Your task to perform on an android device: Open settings on Google Maps Image 0: 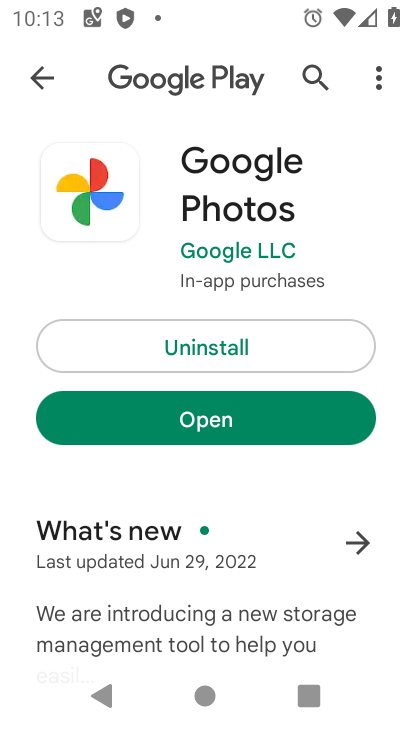
Step 0: press home button
Your task to perform on an android device: Open settings on Google Maps Image 1: 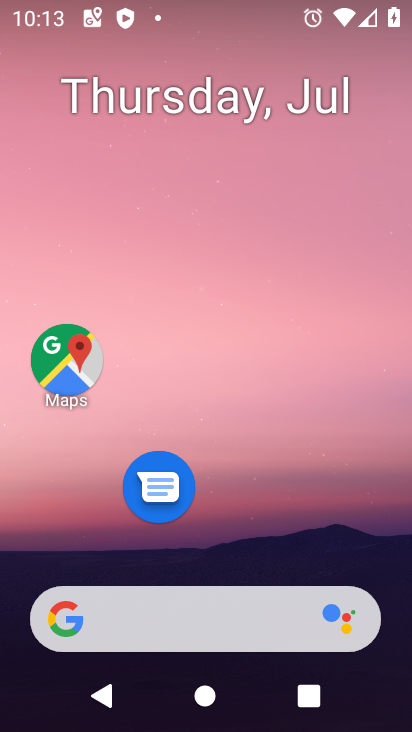
Step 1: drag from (215, 601) to (215, 215)
Your task to perform on an android device: Open settings on Google Maps Image 2: 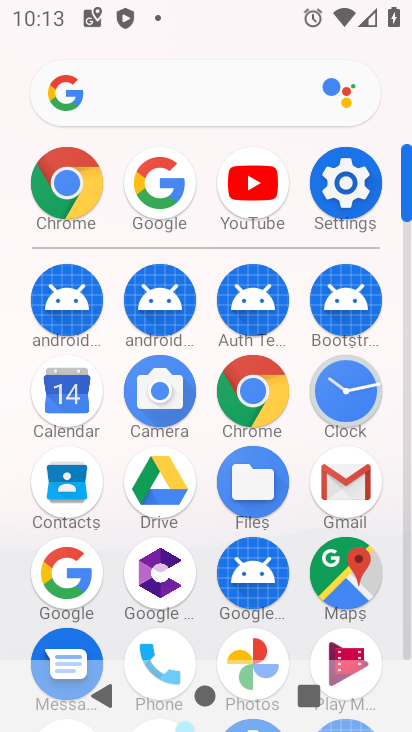
Step 2: drag from (156, 499) to (177, 298)
Your task to perform on an android device: Open settings on Google Maps Image 3: 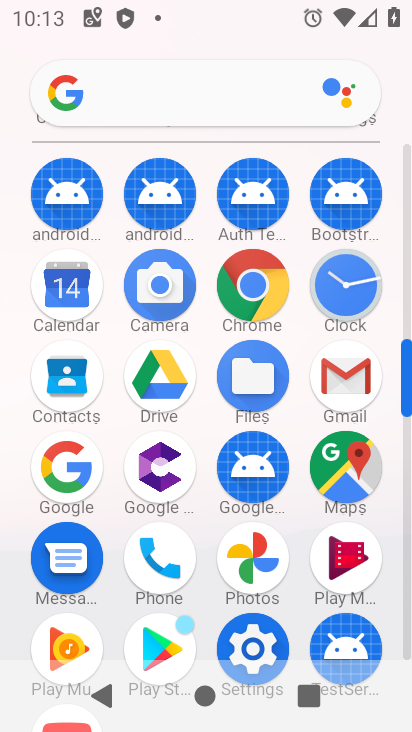
Step 3: click (349, 472)
Your task to perform on an android device: Open settings on Google Maps Image 4: 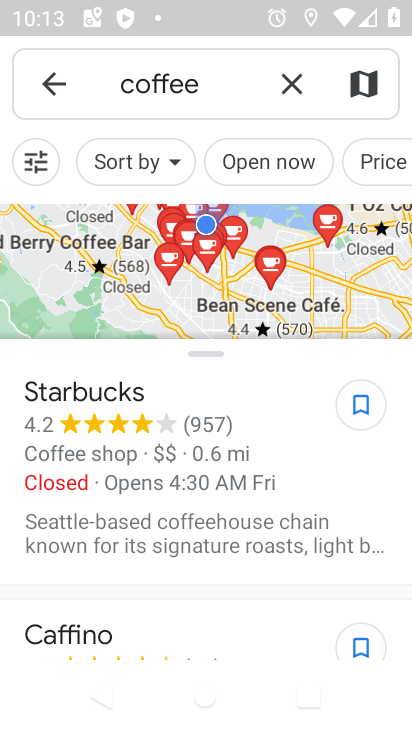
Step 4: click (60, 86)
Your task to perform on an android device: Open settings on Google Maps Image 5: 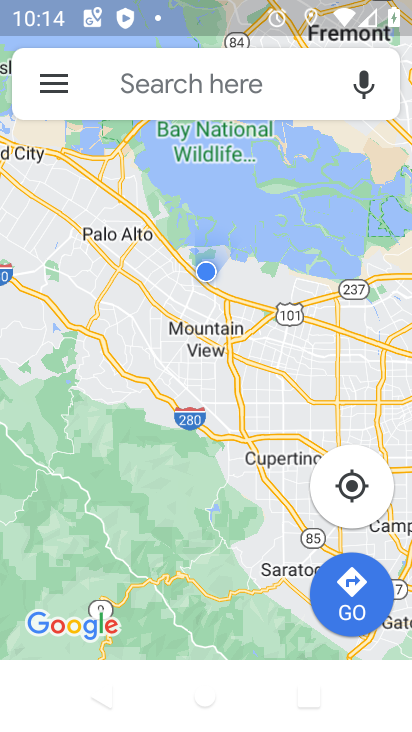
Step 5: click (51, 86)
Your task to perform on an android device: Open settings on Google Maps Image 6: 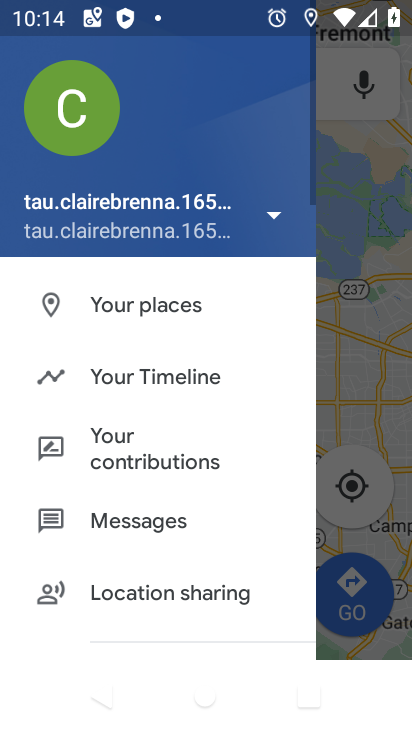
Step 6: drag from (103, 522) to (185, 94)
Your task to perform on an android device: Open settings on Google Maps Image 7: 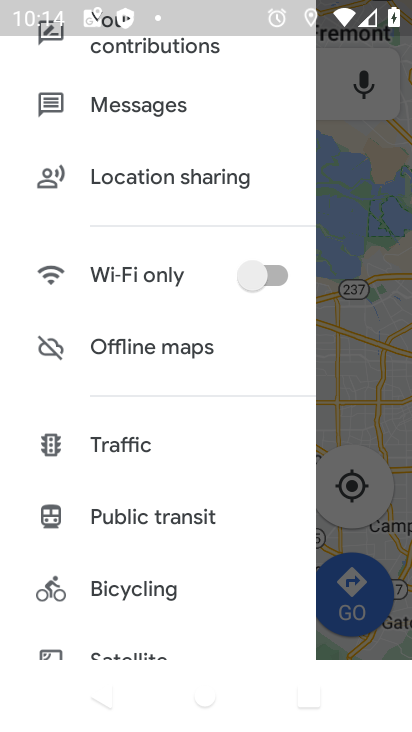
Step 7: drag from (123, 521) to (198, 176)
Your task to perform on an android device: Open settings on Google Maps Image 8: 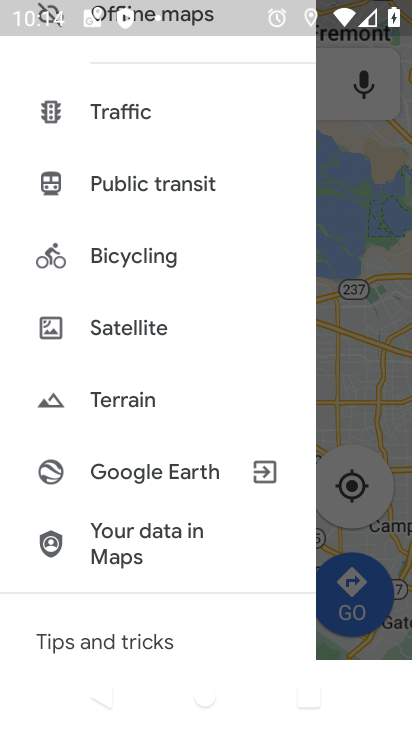
Step 8: drag from (104, 529) to (179, 150)
Your task to perform on an android device: Open settings on Google Maps Image 9: 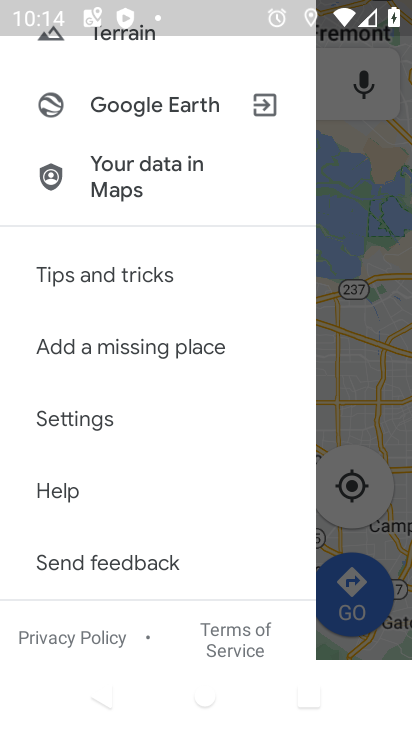
Step 9: click (99, 426)
Your task to perform on an android device: Open settings on Google Maps Image 10: 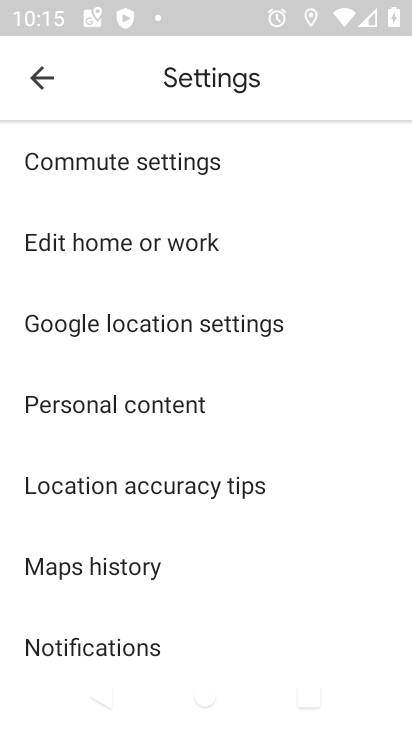
Step 10: task complete